Your task to perform on an android device: turn smart compose on in the gmail app Image 0: 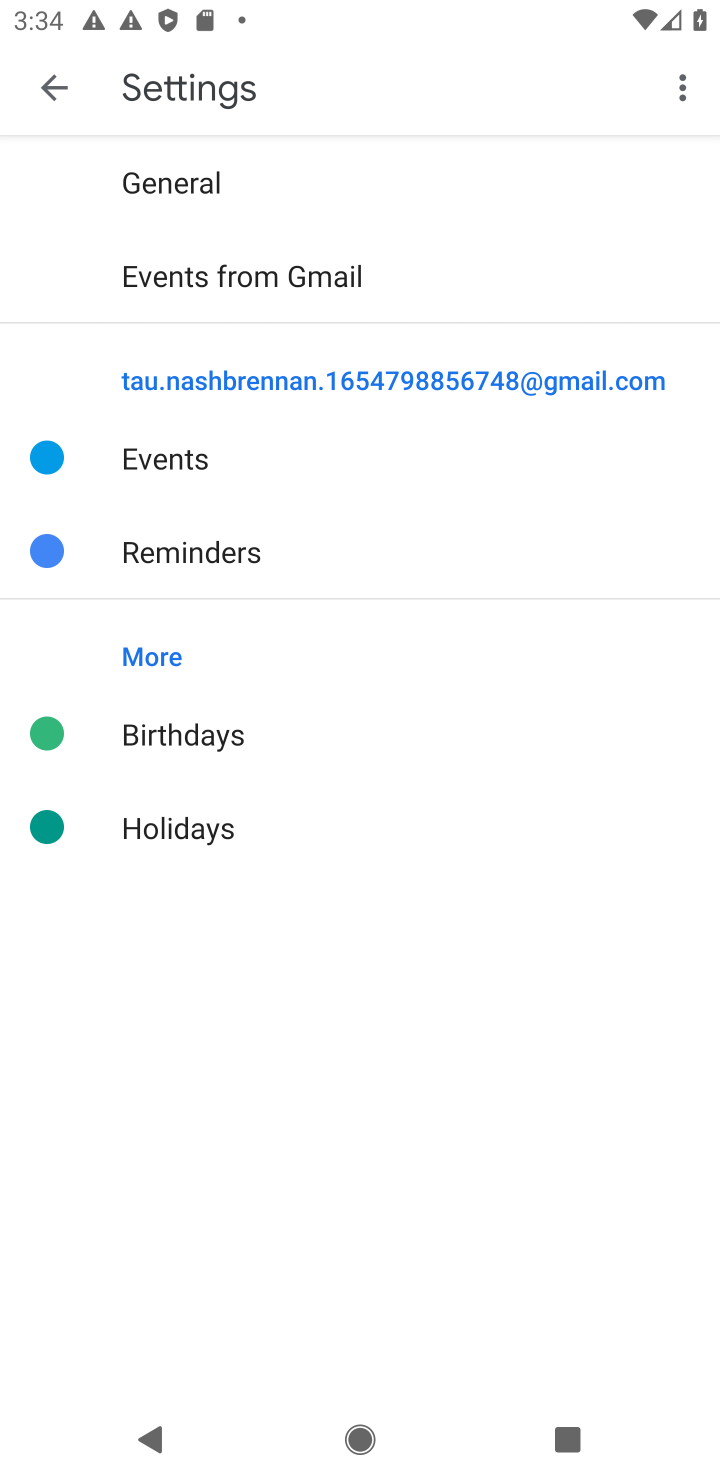
Step 0: press home button
Your task to perform on an android device: turn smart compose on in the gmail app Image 1: 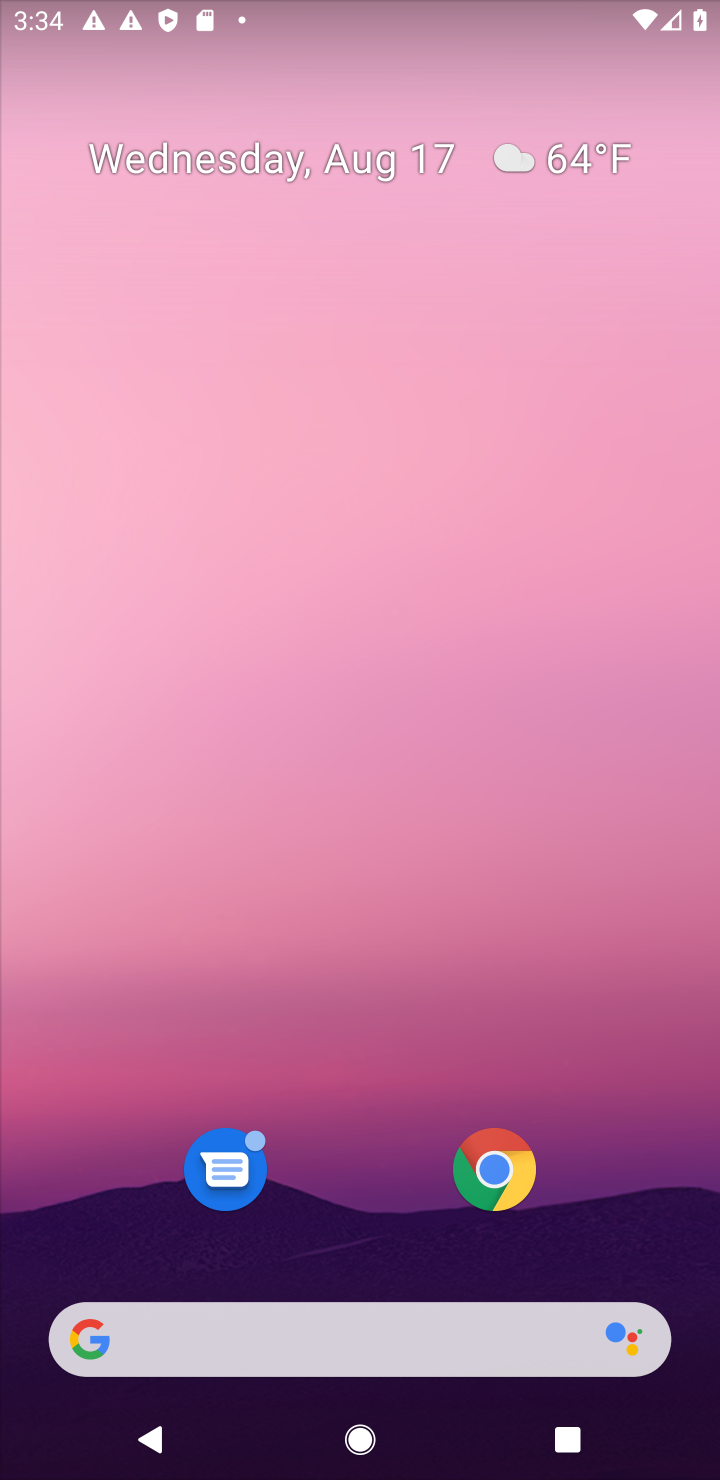
Step 1: drag from (394, 1143) to (398, 22)
Your task to perform on an android device: turn smart compose on in the gmail app Image 2: 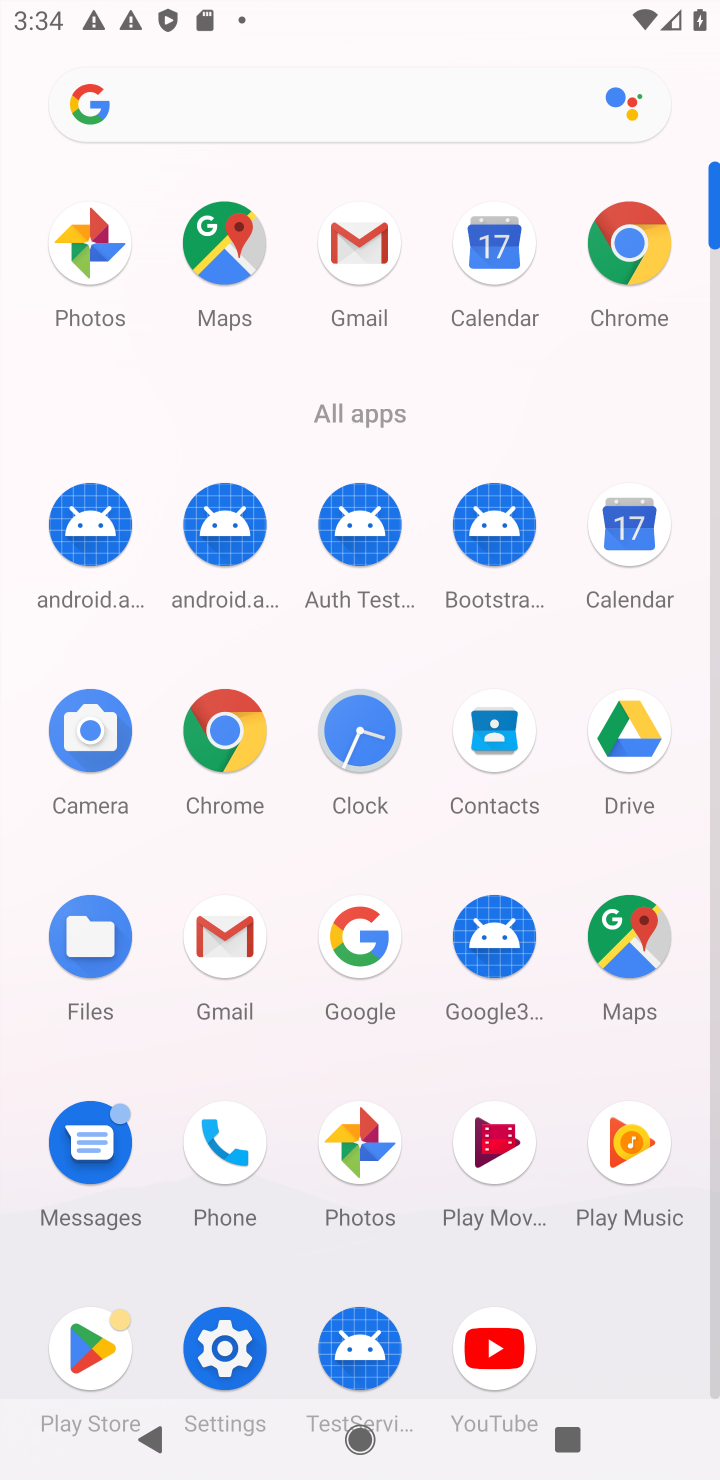
Step 2: click (224, 915)
Your task to perform on an android device: turn smart compose on in the gmail app Image 3: 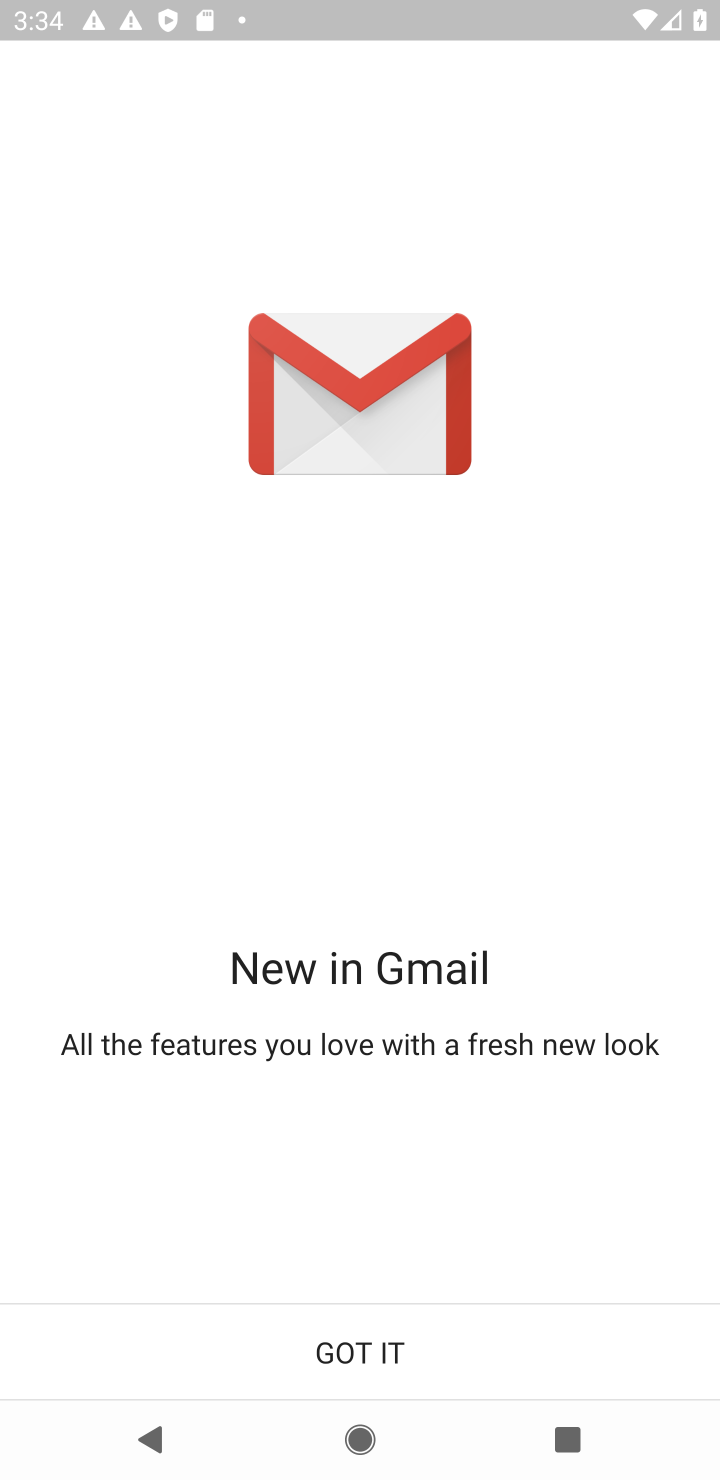
Step 3: click (401, 1353)
Your task to perform on an android device: turn smart compose on in the gmail app Image 4: 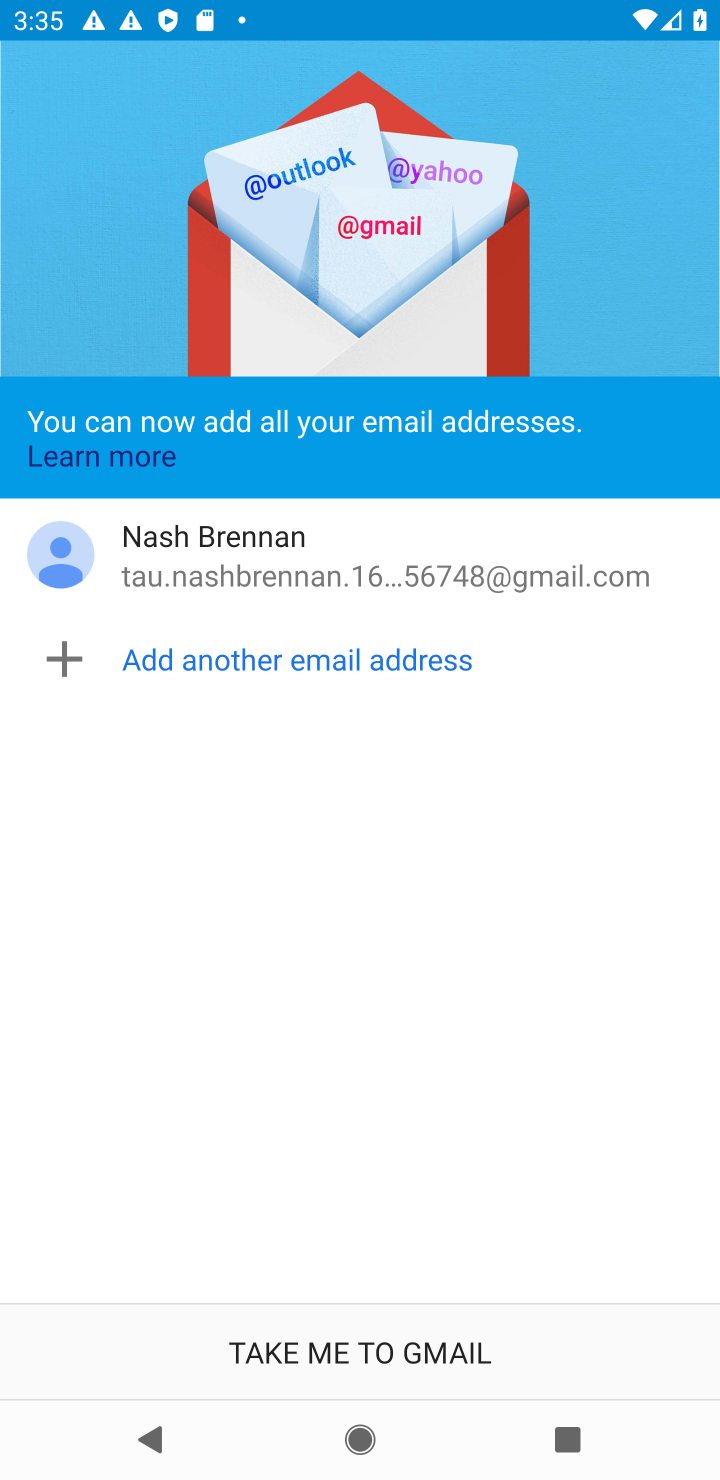
Step 4: click (457, 1334)
Your task to perform on an android device: turn smart compose on in the gmail app Image 5: 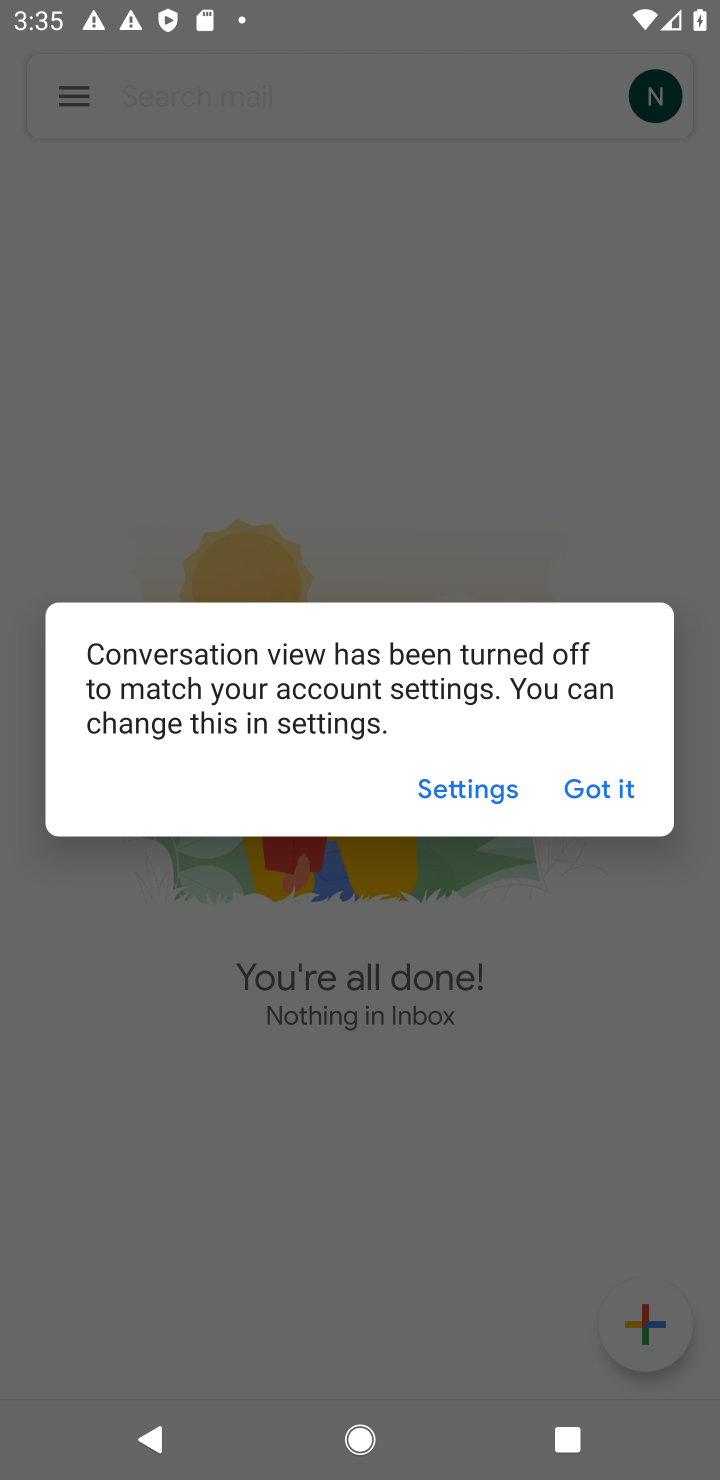
Step 5: click (572, 788)
Your task to perform on an android device: turn smart compose on in the gmail app Image 6: 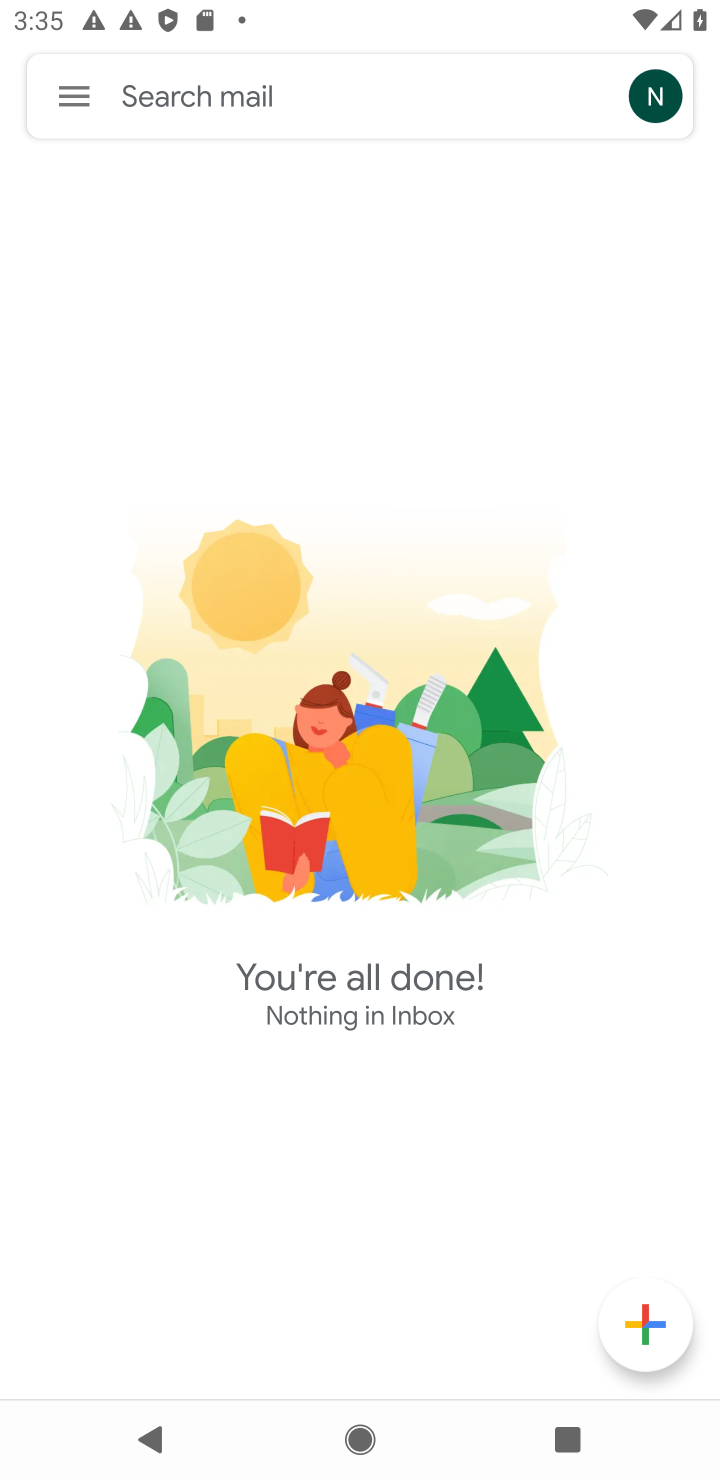
Step 6: click (65, 102)
Your task to perform on an android device: turn smart compose on in the gmail app Image 7: 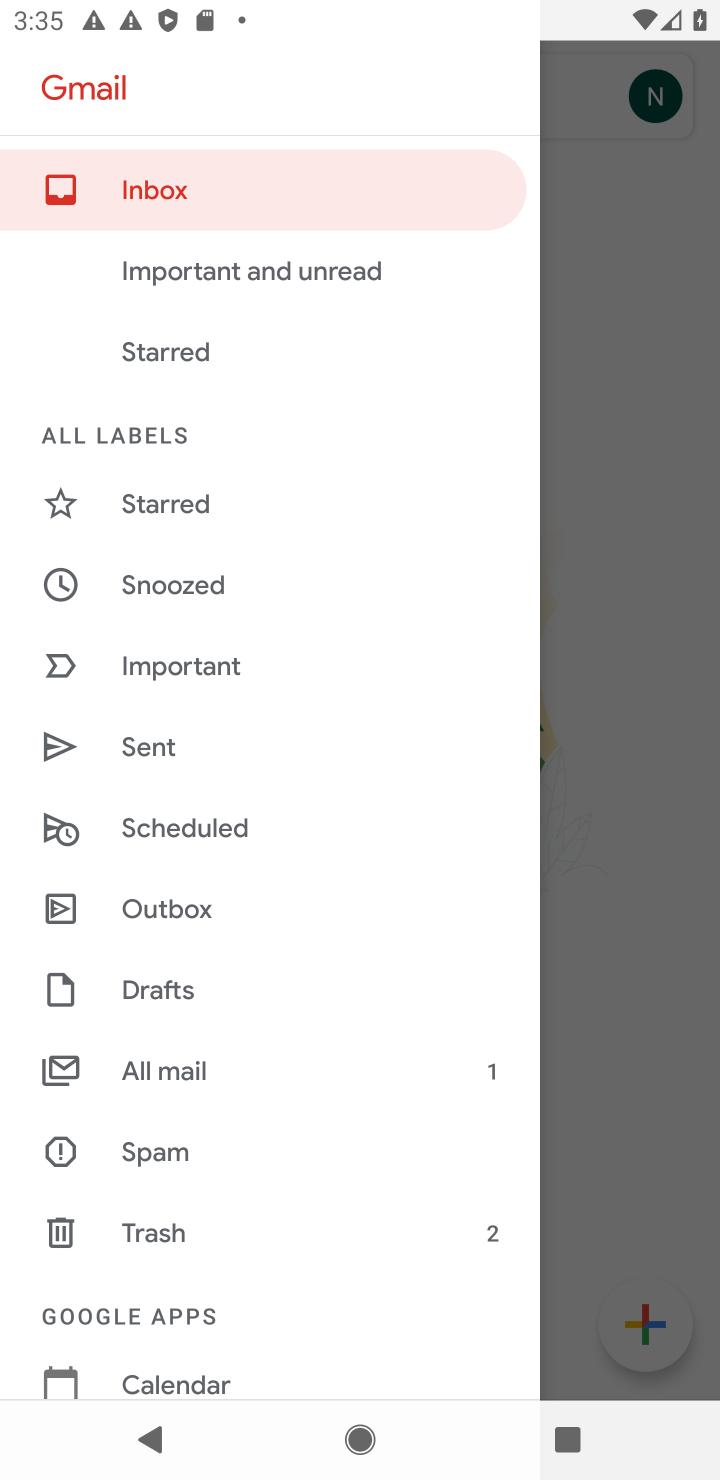
Step 7: drag from (247, 1310) to (316, 290)
Your task to perform on an android device: turn smart compose on in the gmail app Image 8: 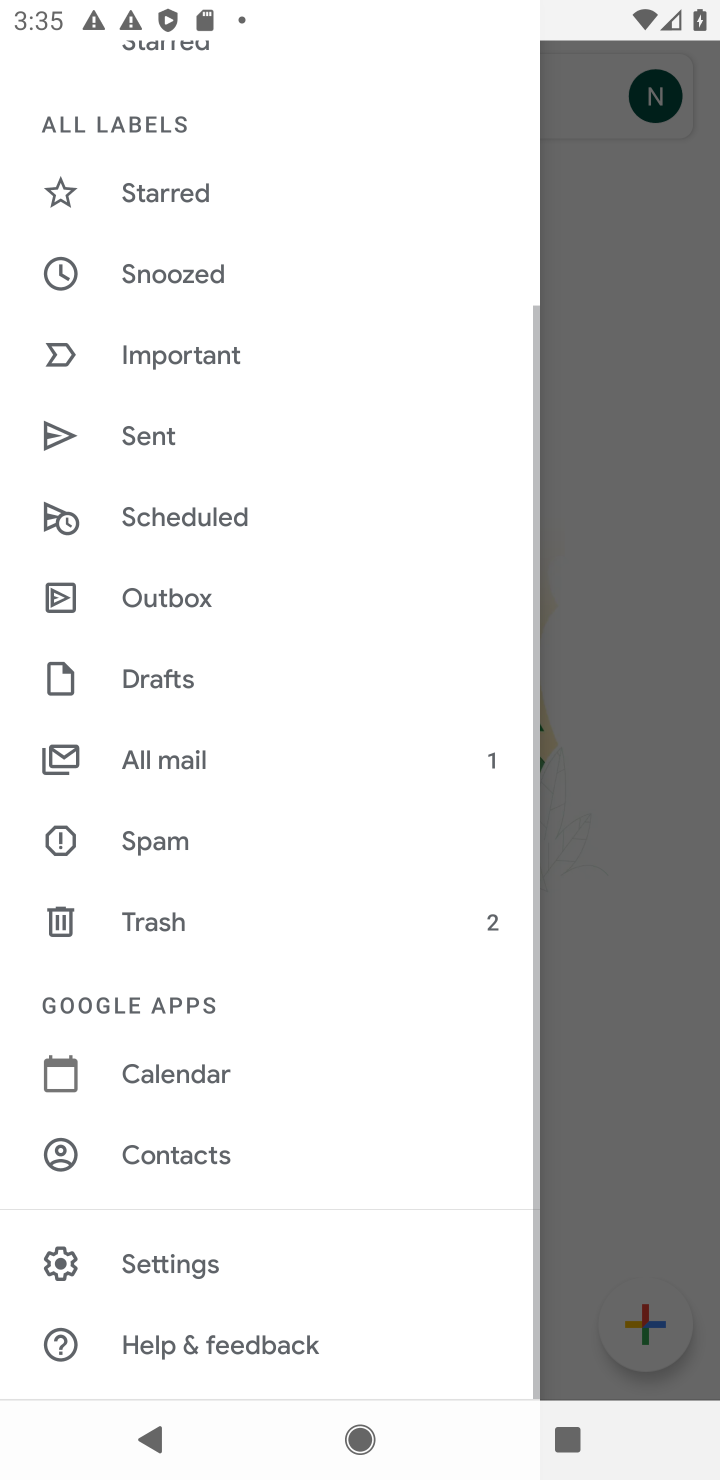
Step 8: click (151, 1262)
Your task to perform on an android device: turn smart compose on in the gmail app Image 9: 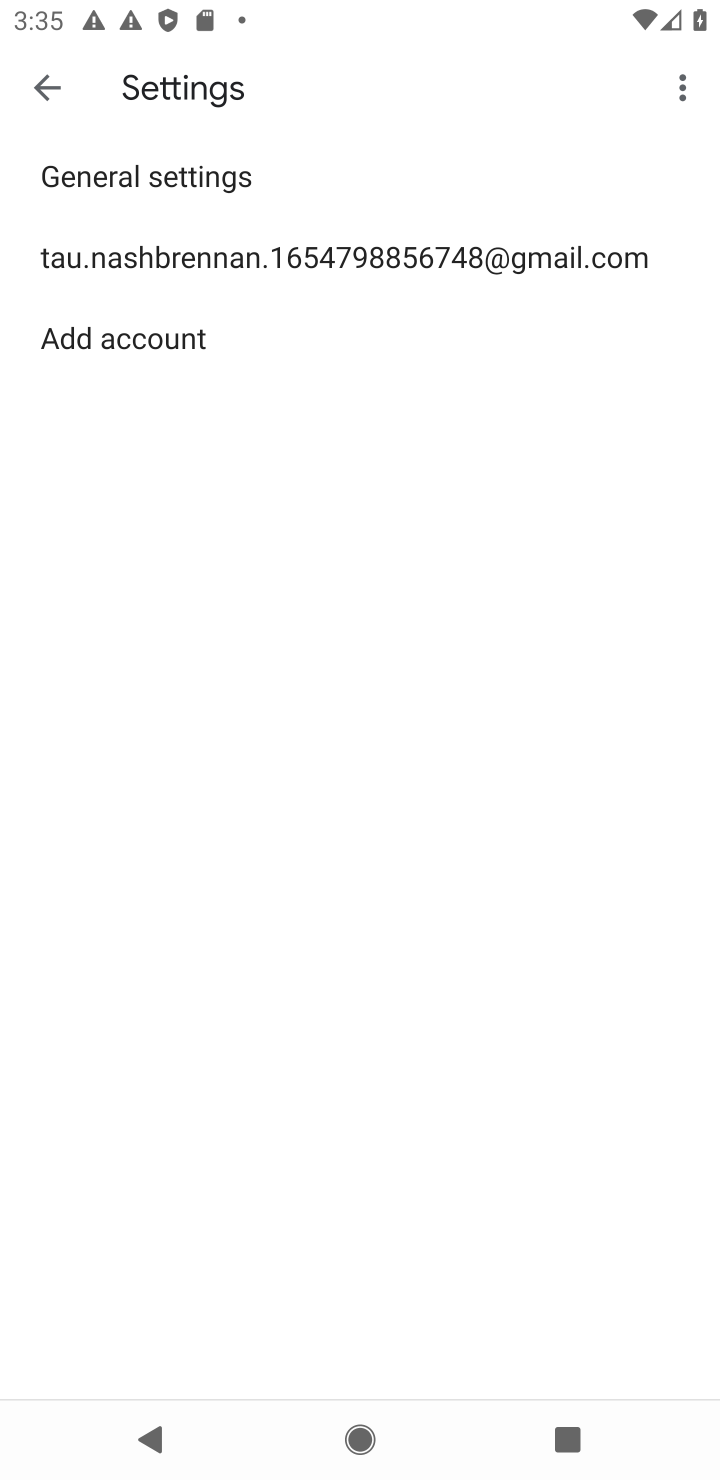
Step 9: click (352, 242)
Your task to perform on an android device: turn smart compose on in the gmail app Image 10: 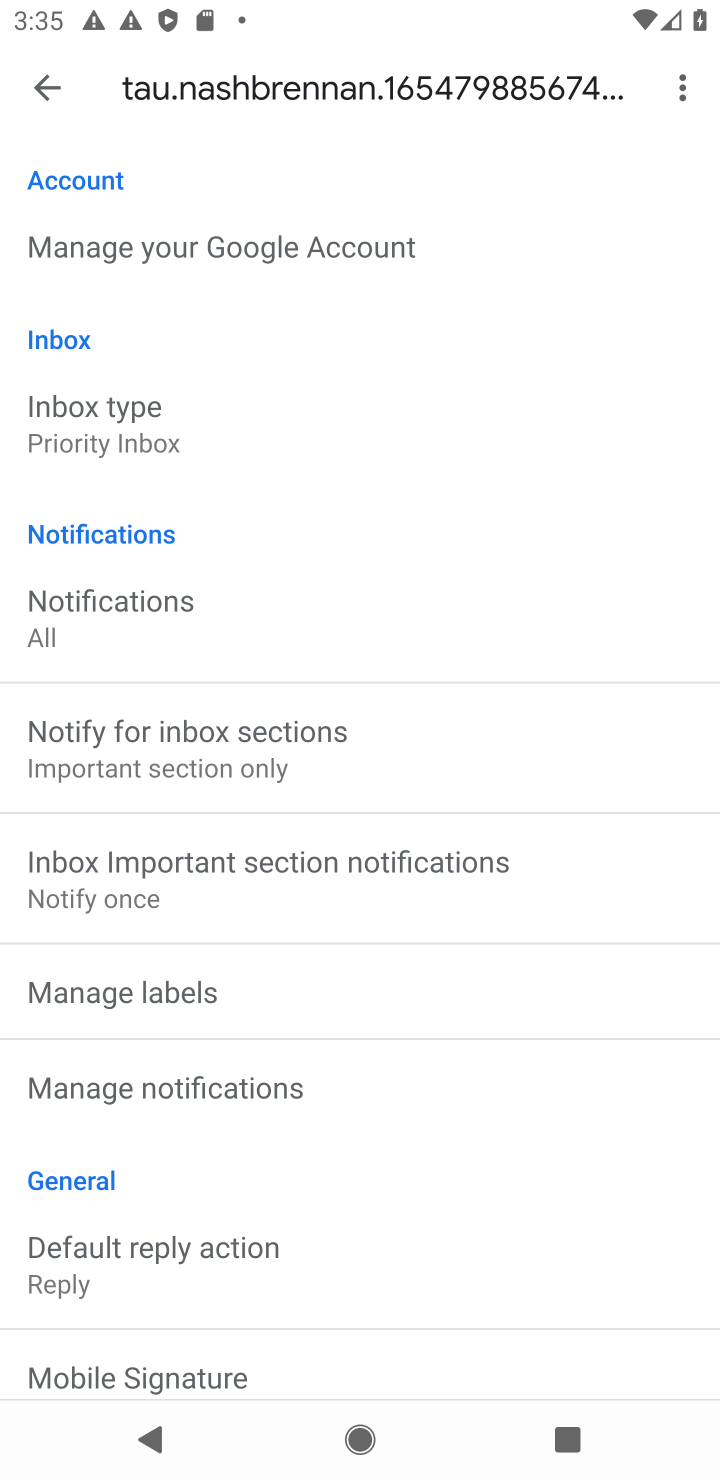
Step 10: task complete